Your task to perform on an android device: Search for vegetarian restaurants on Maps Image 0: 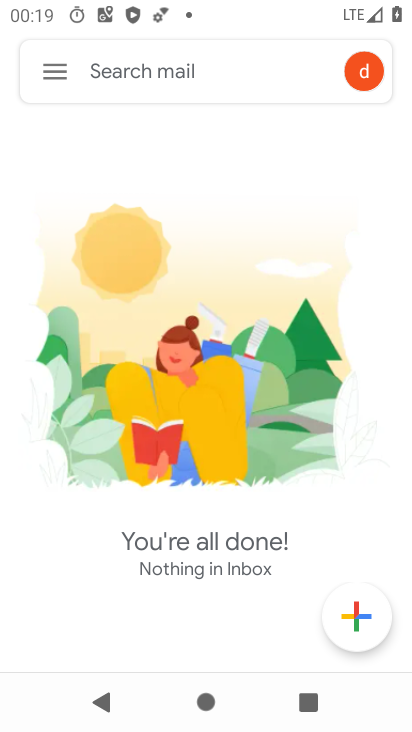
Step 0: drag from (214, 576) to (225, 159)
Your task to perform on an android device: Search for vegetarian restaurants on Maps Image 1: 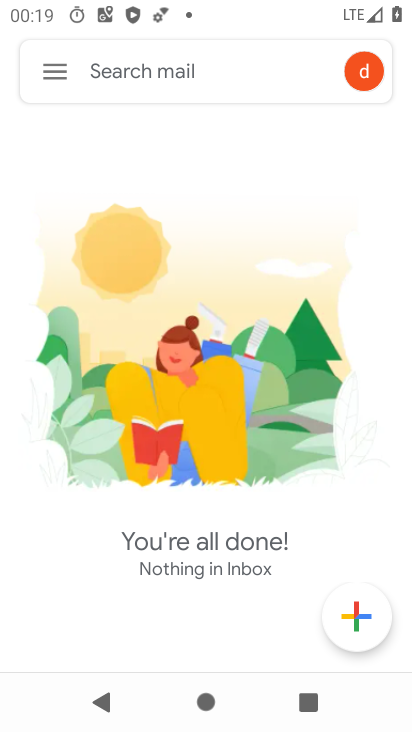
Step 1: drag from (201, 530) to (229, 188)
Your task to perform on an android device: Search for vegetarian restaurants on Maps Image 2: 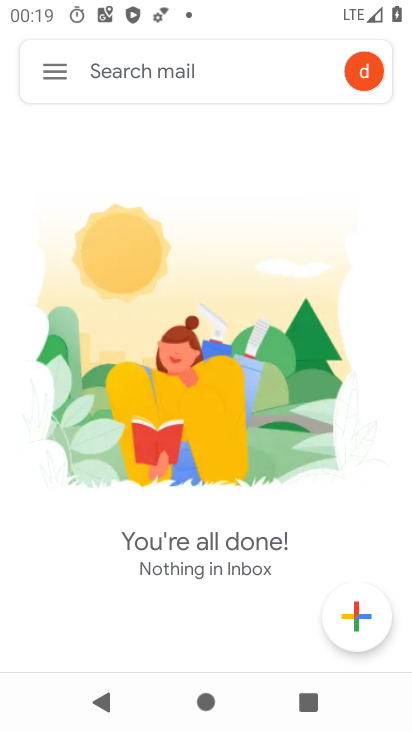
Step 2: drag from (200, 551) to (202, 249)
Your task to perform on an android device: Search for vegetarian restaurants on Maps Image 3: 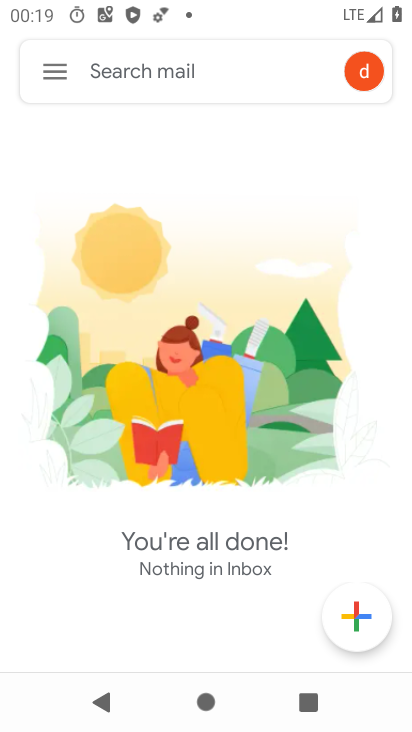
Step 3: press home button
Your task to perform on an android device: Search for vegetarian restaurants on Maps Image 4: 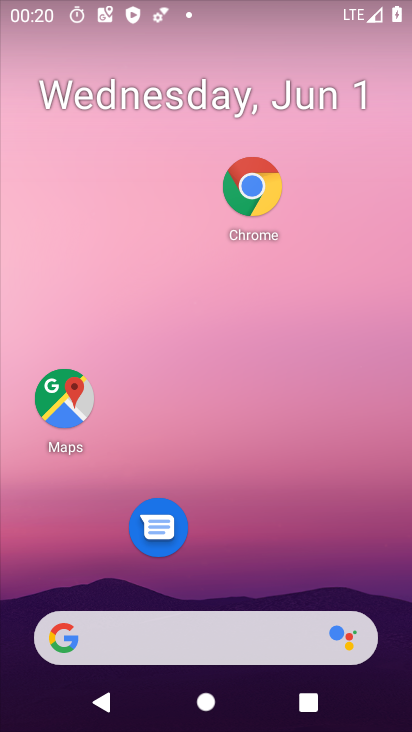
Step 4: drag from (226, 563) to (120, 76)
Your task to perform on an android device: Search for vegetarian restaurants on Maps Image 5: 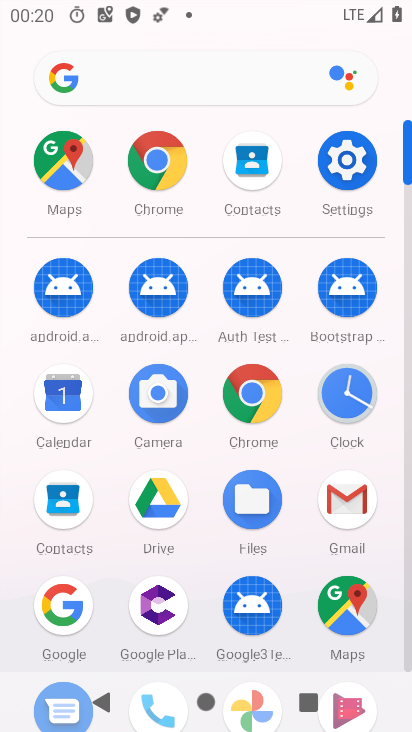
Step 5: drag from (199, 564) to (209, 174)
Your task to perform on an android device: Search for vegetarian restaurants on Maps Image 6: 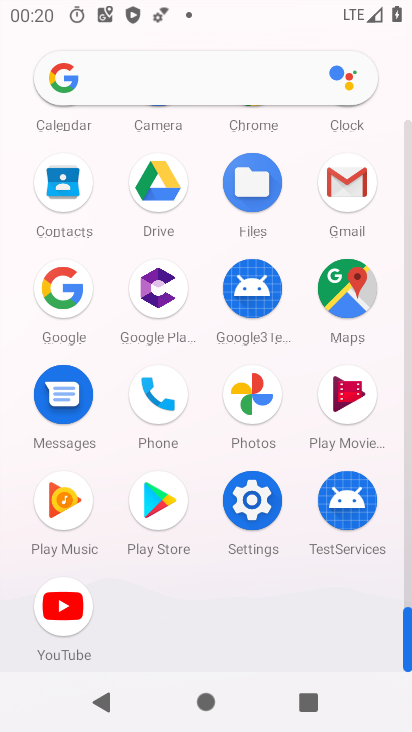
Step 6: drag from (206, 454) to (188, 225)
Your task to perform on an android device: Search for vegetarian restaurants on Maps Image 7: 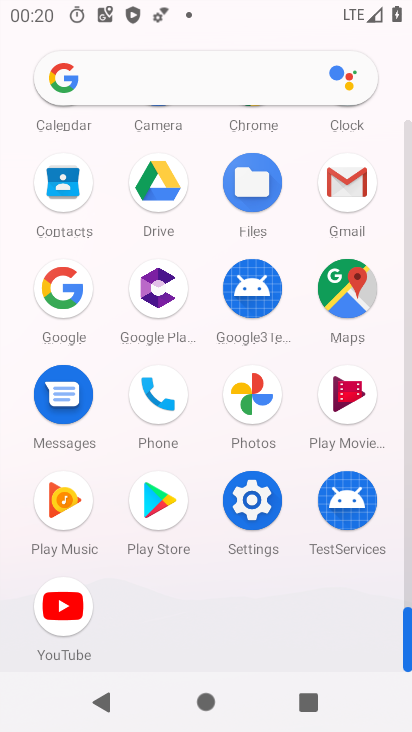
Step 7: drag from (207, 507) to (196, 152)
Your task to perform on an android device: Search for vegetarian restaurants on Maps Image 8: 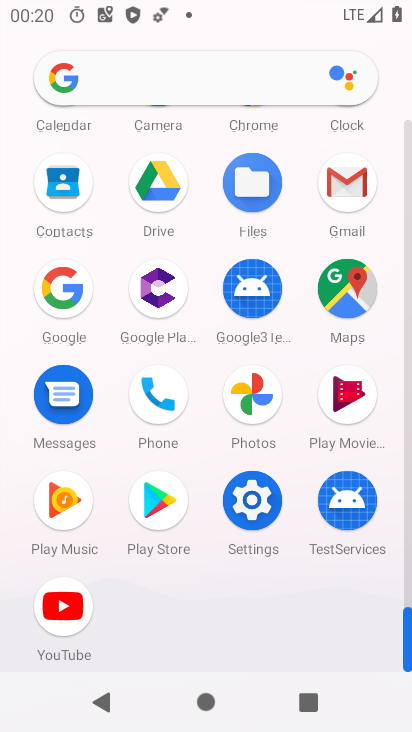
Step 8: drag from (195, 168) to (195, 524)
Your task to perform on an android device: Search for vegetarian restaurants on Maps Image 9: 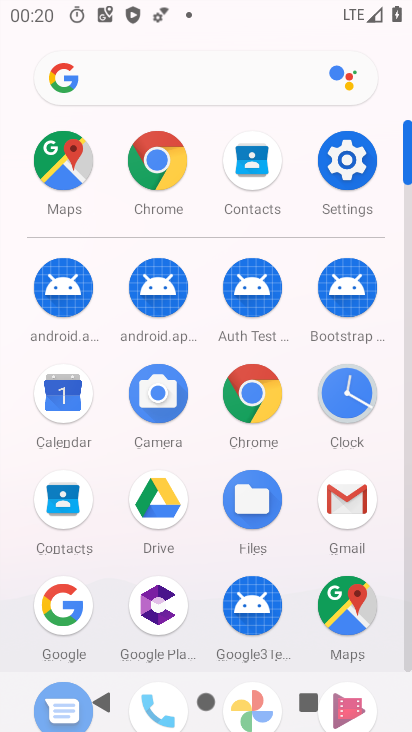
Step 9: drag from (191, 505) to (176, 218)
Your task to perform on an android device: Search for vegetarian restaurants on Maps Image 10: 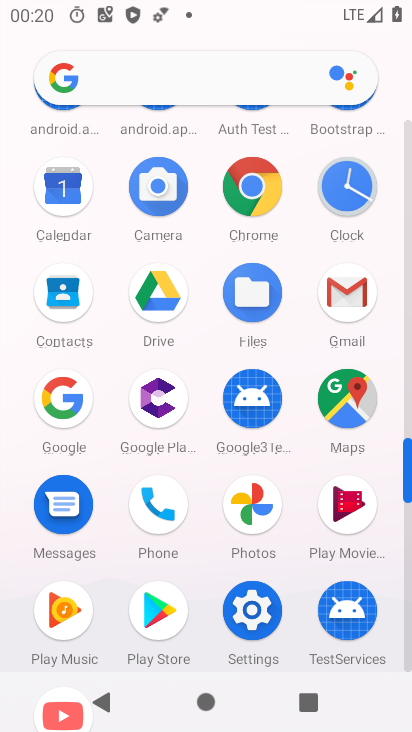
Step 10: drag from (199, 543) to (175, 242)
Your task to perform on an android device: Search for vegetarian restaurants on Maps Image 11: 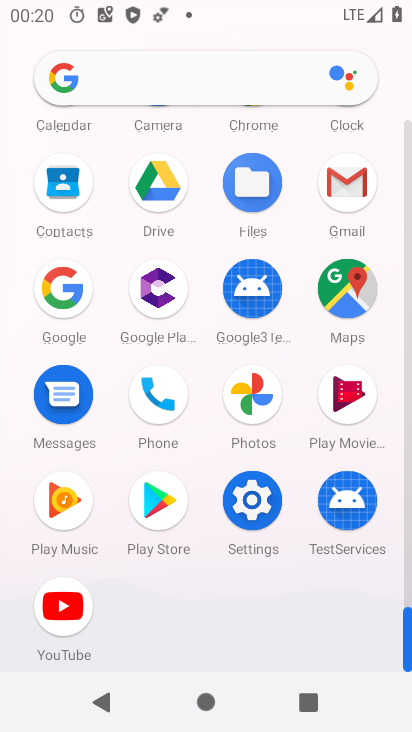
Step 11: drag from (196, 341) to (194, 112)
Your task to perform on an android device: Search for vegetarian restaurants on Maps Image 12: 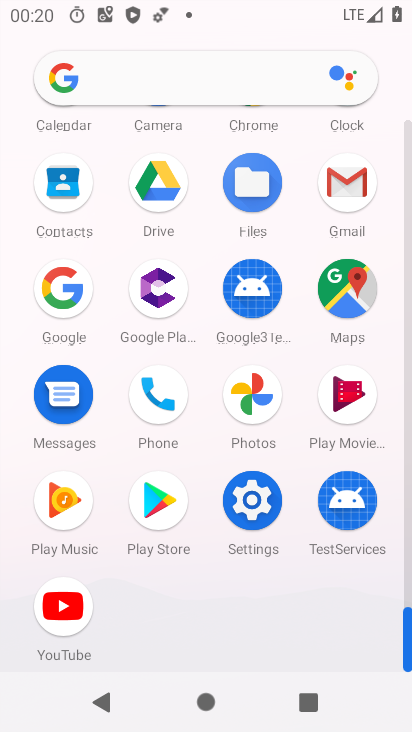
Step 12: click (346, 290)
Your task to perform on an android device: Search for vegetarian restaurants on Maps Image 13: 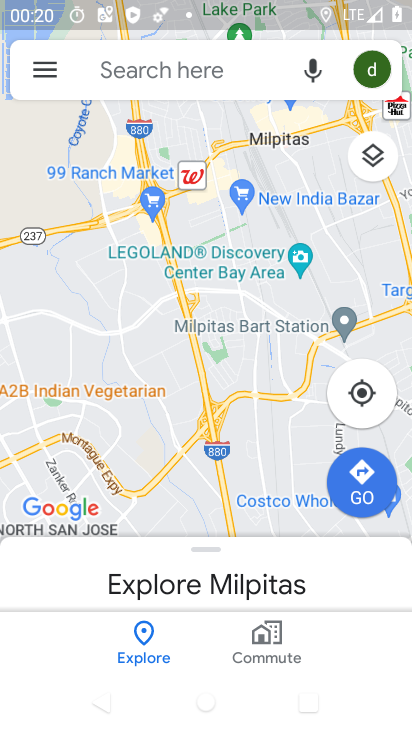
Step 13: click (124, 85)
Your task to perform on an android device: Search for vegetarian restaurants on Maps Image 14: 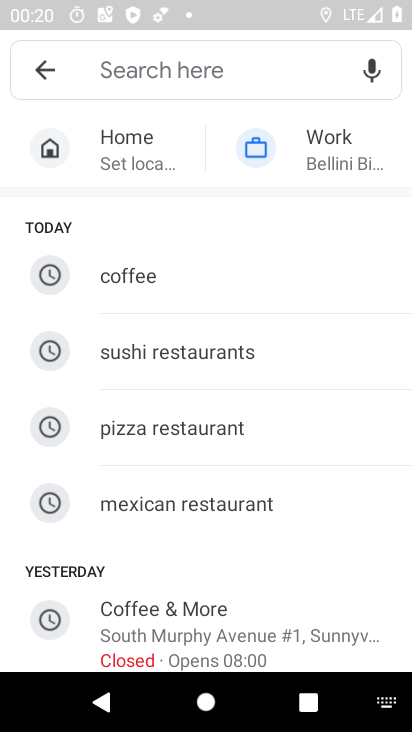
Step 14: drag from (193, 497) to (191, 207)
Your task to perform on an android device: Search for vegetarian restaurants on Maps Image 15: 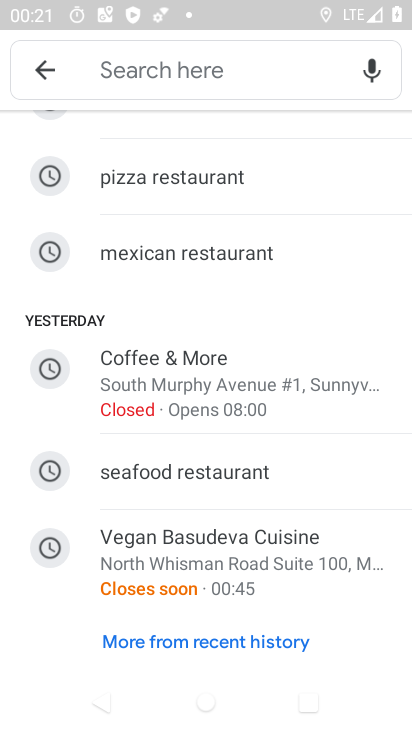
Step 15: drag from (181, 268) to (315, 705)
Your task to perform on an android device: Search for vegetarian restaurants on Maps Image 16: 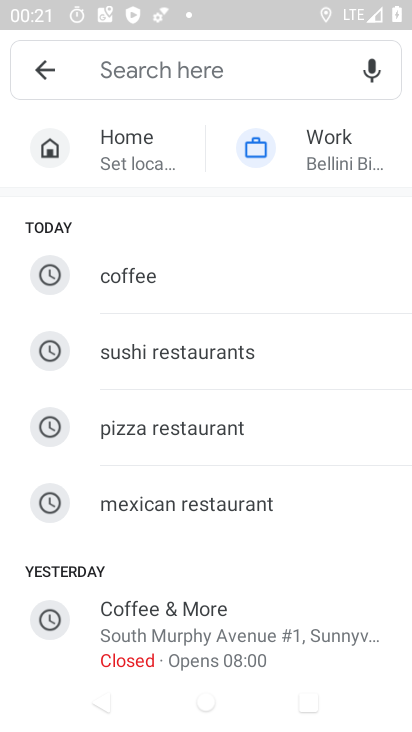
Step 16: click (171, 77)
Your task to perform on an android device: Search for vegetarian restaurants on Maps Image 17: 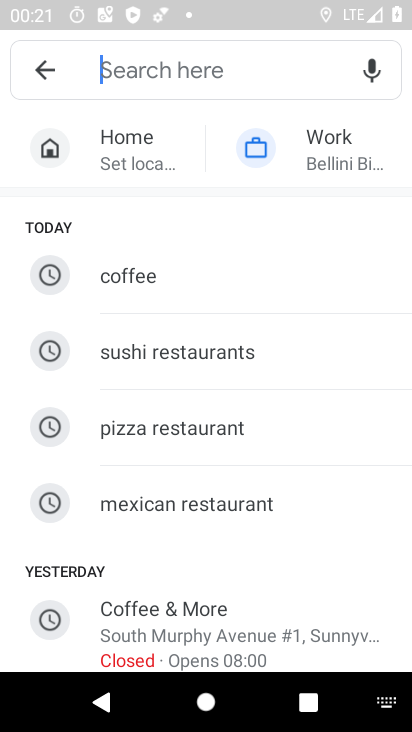
Step 17: type "vegetarian restaurants"
Your task to perform on an android device: Search for vegetarian restaurants on Maps Image 18: 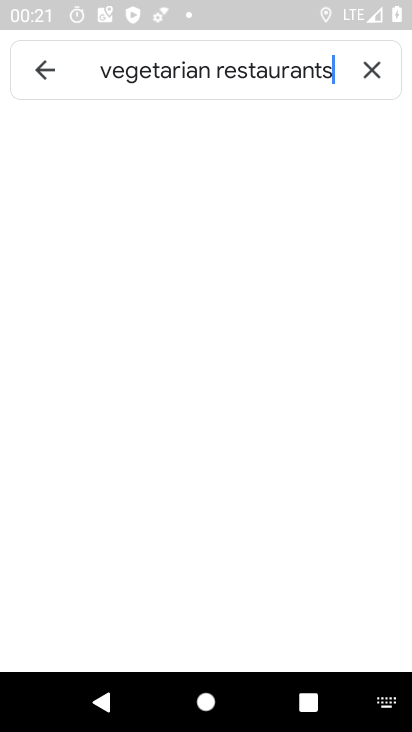
Step 18: type ""
Your task to perform on an android device: Search for vegetarian restaurants on Maps Image 19: 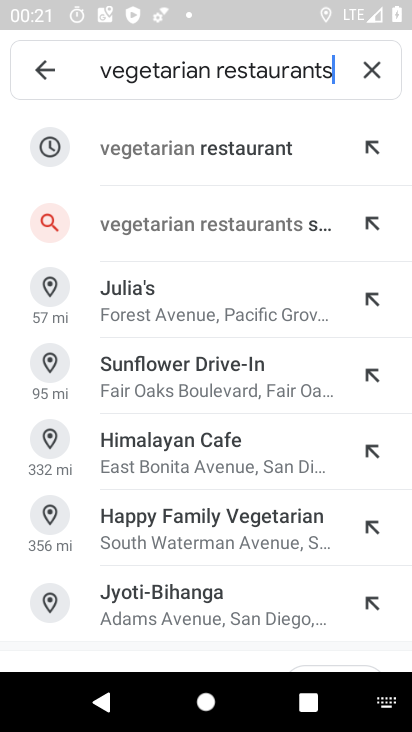
Step 19: click (157, 145)
Your task to perform on an android device: Search for vegetarian restaurants on Maps Image 20: 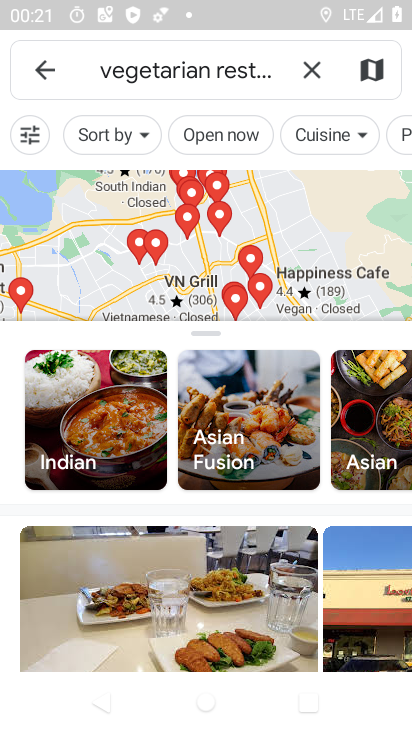
Step 20: task complete